Your task to perform on an android device: Open calendar and show me the first week of next month Image 0: 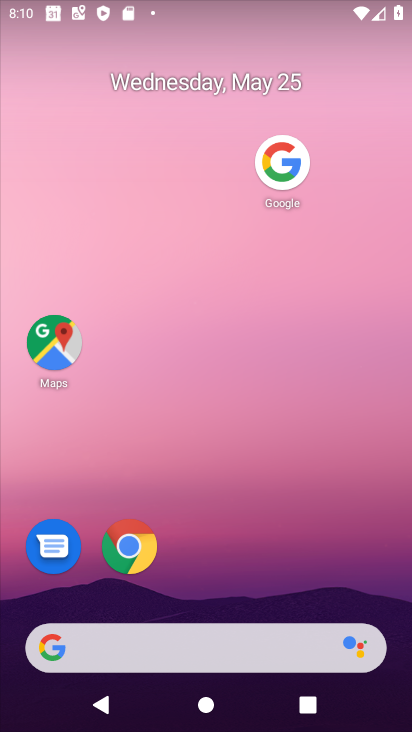
Step 0: press home button
Your task to perform on an android device: Open calendar and show me the first week of next month Image 1: 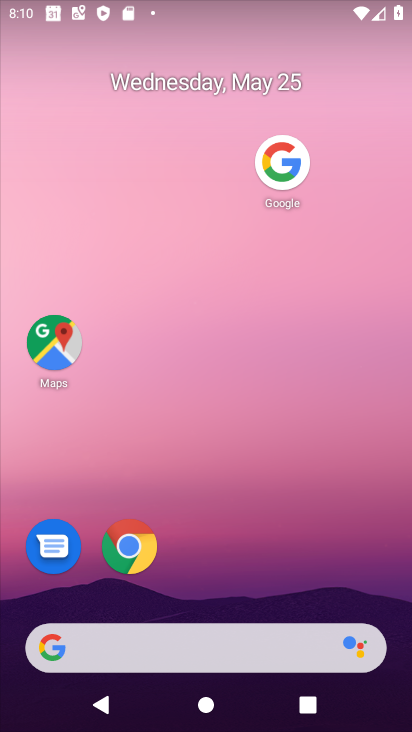
Step 1: drag from (191, 632) to (264, 3)
Your task to perform on an android device: Open calendar and show me the first week of next month Image 2: 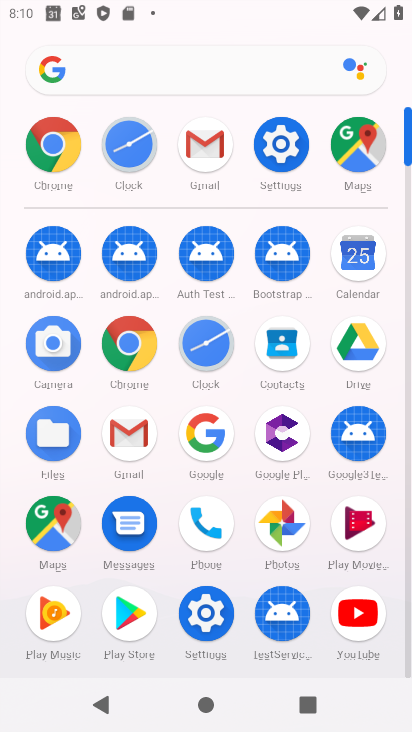
Step 2: click (351, 251)
Your task to perform on an android device: Open calendar and show me the first week of next month Image 3: 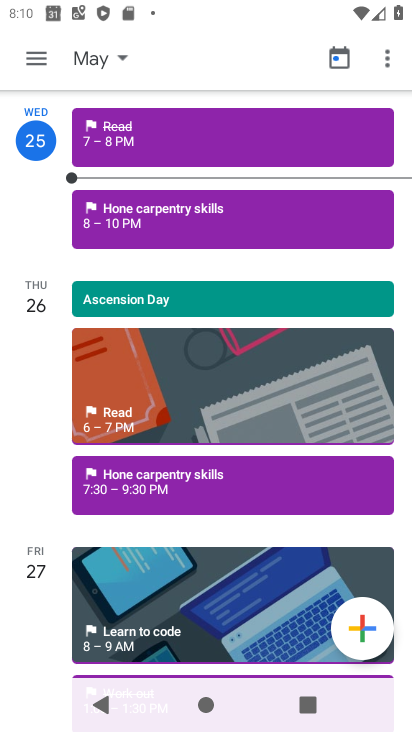
Step 3: click (84, 63)
Your task to perform on an android device: Open calendar and show me the first week of next month Image 4: 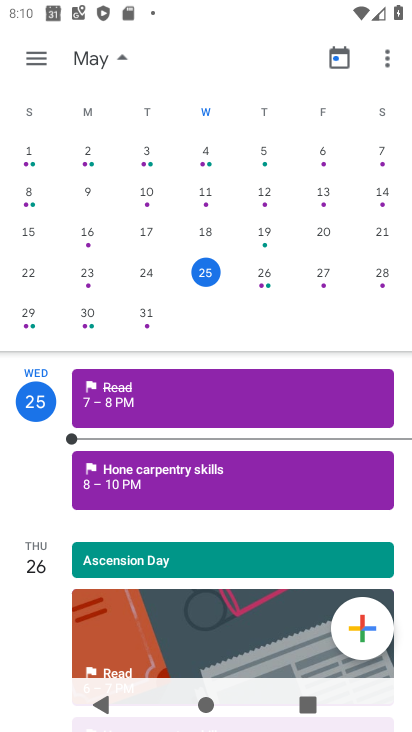
Step 4: drag from (346, 271) to (0, 136)
Your task to perform on an android device: Open calendar and show me the first week of next month Image 5: 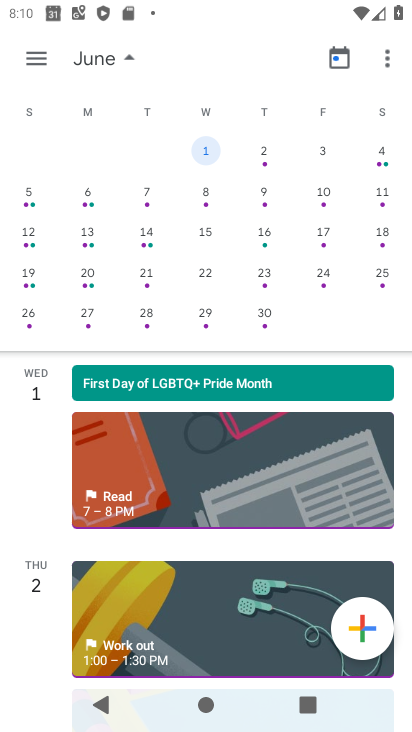
Step 5: click (208, 148)
Your task to perform on an android device: Open calendar and show me the first week of next month Image 6: 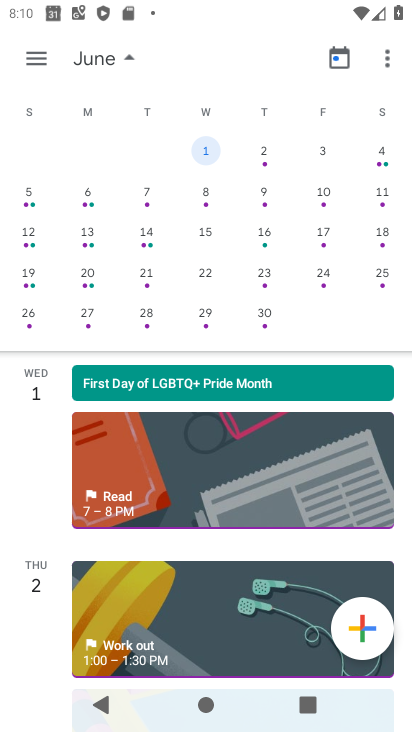
Step 6: click (34, 55)
Your task to perform on an android device: Open calendar and show me the first week of next month Image 7: 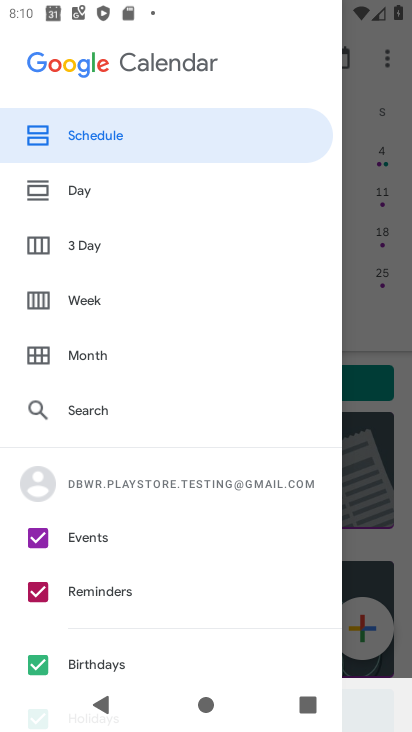
Step 7: click (86, 297)
Your task to perform on an android device: Open calendar and show me the first week of next month Image 8: 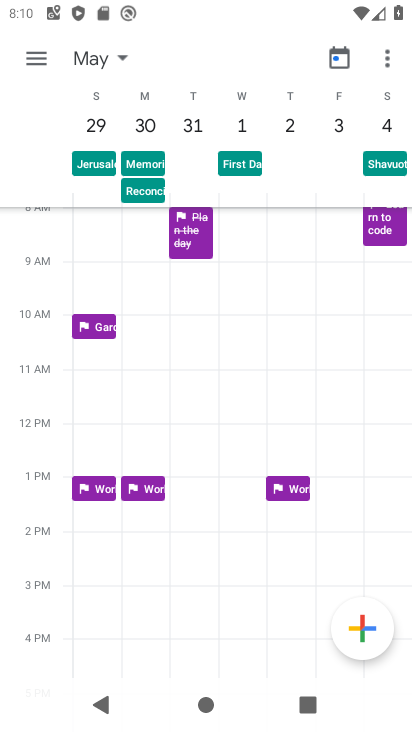
Step 8: task complete